Your task to perform on an android device: stop showing notifications on the lock screen Image 0: 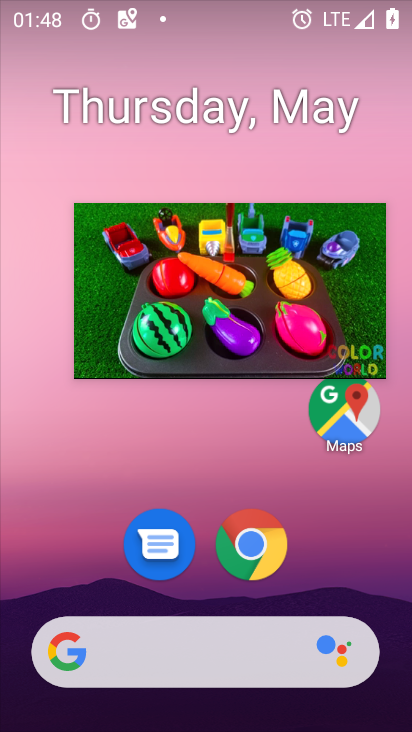
Step 0: drag from (376, 561) to (366, 149)
Your task to perform on an android device: stop showing notifications on the lock screen Image 1: 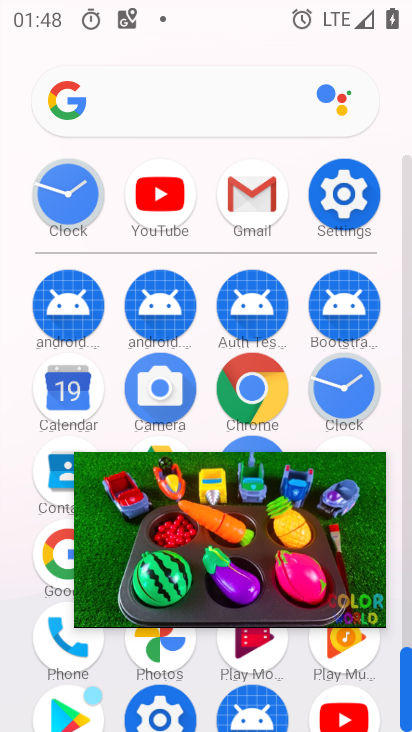
Step 1: click (363, 222)
Your task to perform on an android device: stop showing notifications on the lock screen Image 2: 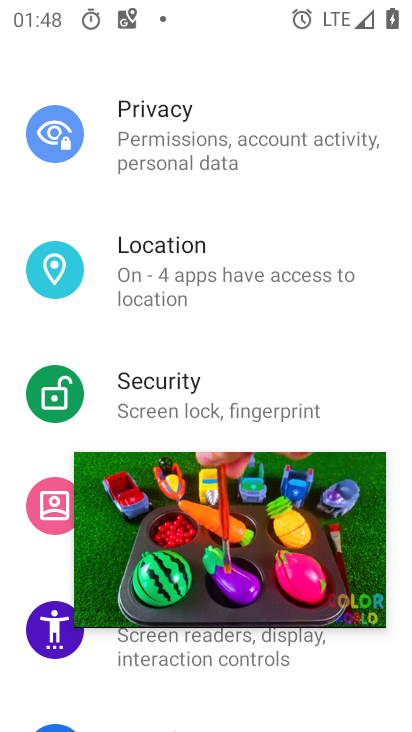
Step 2: drag from (364, 383) to (375, 276)
Your task to perform on an android device: stop showing notifications on the lock screen Image 3: 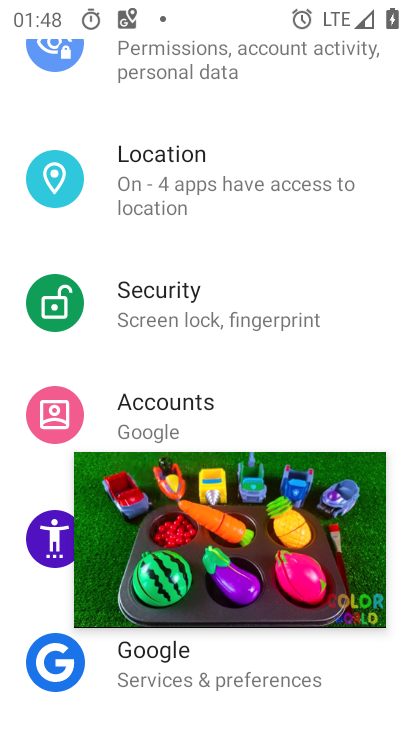
Step 3: drag from (357, 411) to (346, 251)
Your task to perform on an android device: stop showing notifications on the lock screen Image 4: 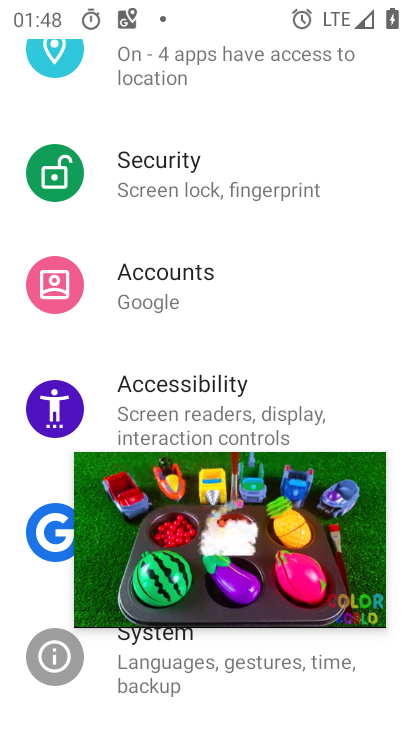
Step 4: drag from (360, 384) to (376, 231)
Your task to perform on an android device: stop showing notifications on the lock screen Image 5: 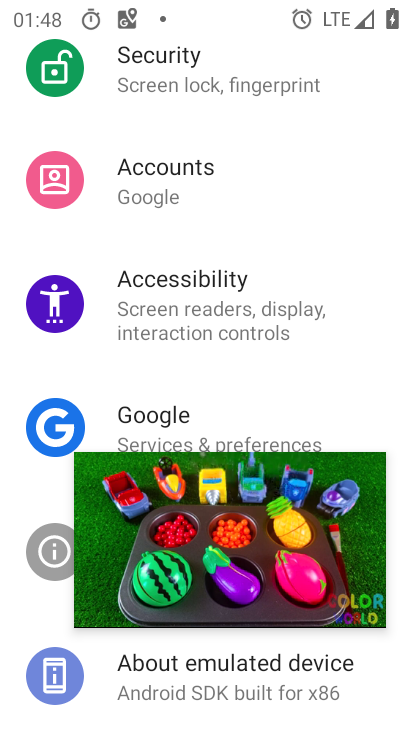
Step 5: drag from (317, 515) to (312, 726)
Your task to perform on an android device: stop showing notifications on the lock screen Image 6: 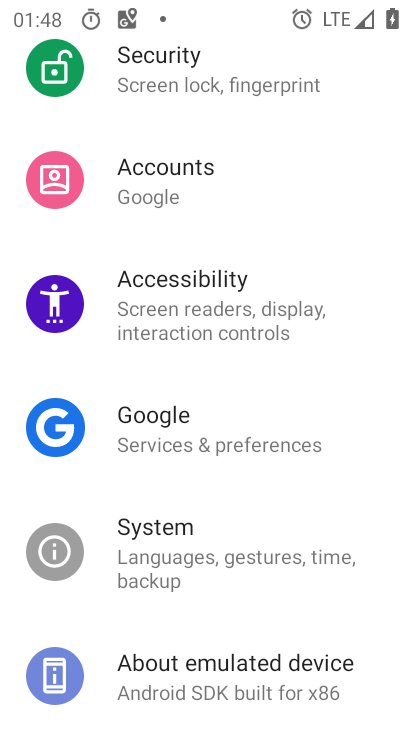
Step 6: drag from (353, 574) to (347, 354)
Your task to perform on an android device: stop showing notifications on the lock screen Image 7: 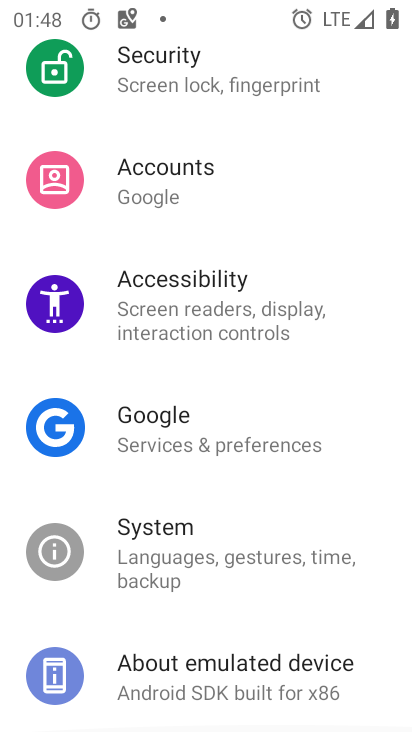
Step 7: drag from (355, 294) to (363, 421)
Your task to perform on an android device: stop showing notifications on the lock screen Image 8: 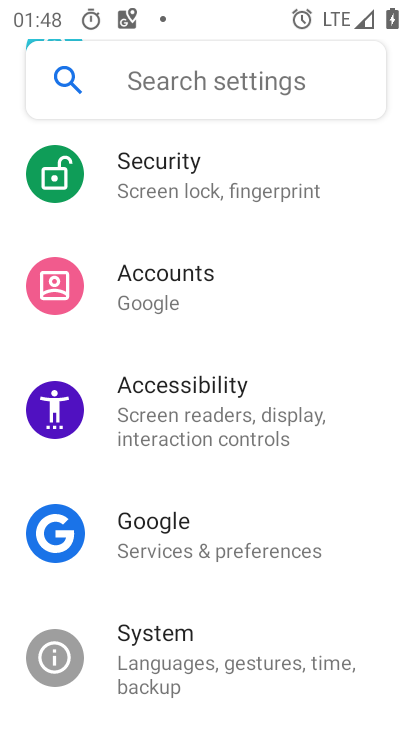
Step 8: drag from (361, 255) to (367, 421)
Your task to perform on an android device: stop showing notifications on the lock screen Image 9: 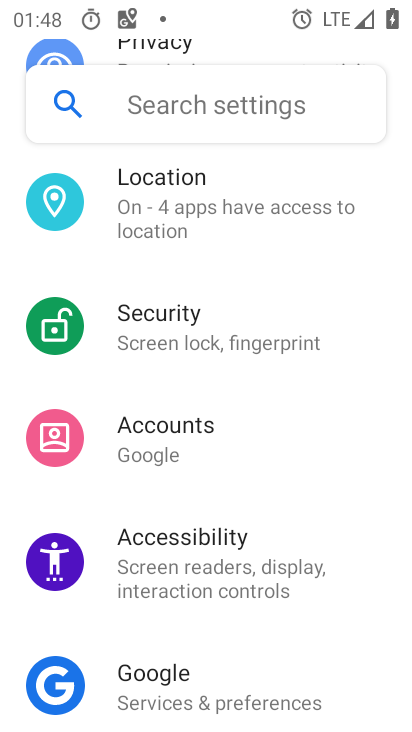
Step 9: drag from (367, 256) to (371, 457)
Your task to perform on an android device: stop showing notifications on the lock screen Image 10: 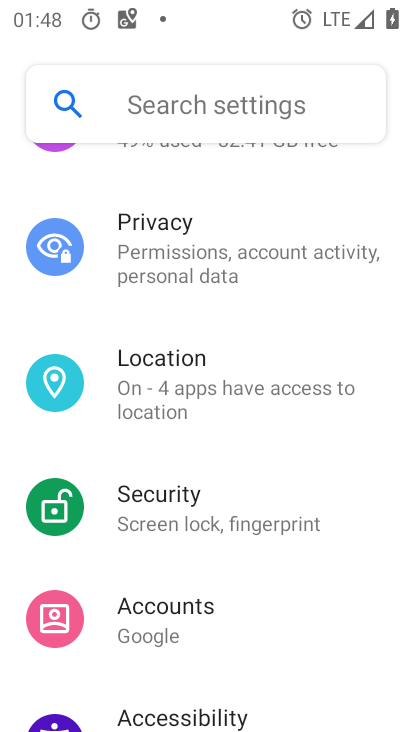
Step 10: drag from (375, 214) to (366, 386)
Your task to perform on an android device: stop showing notifications on the lock screen Image 11: 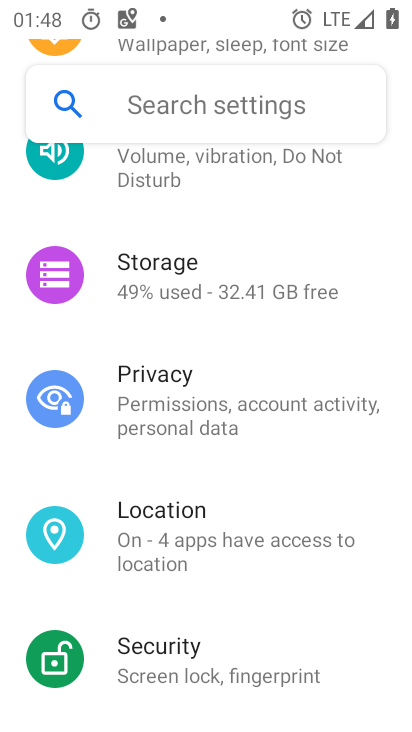
Step 11: drag from (363, 262) to (352, 378)
Your task to perform on an android device: stop showing notifications on the lock screen Image 12: 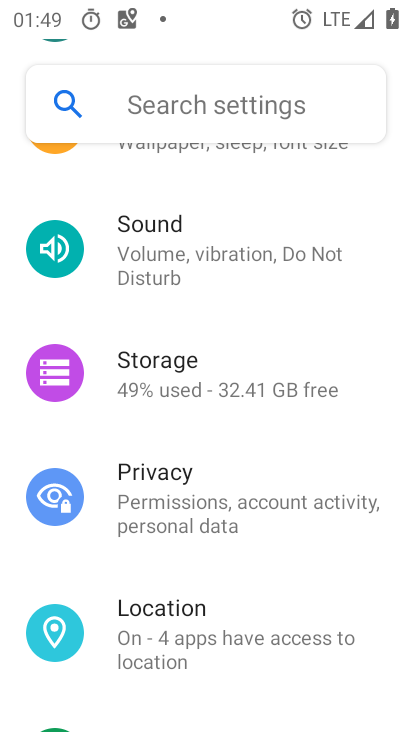
Step 12: drag from (372, 217) to (361, 309)
Your task to perform on an android device: stop showing notifications on the lock screen Image 13: 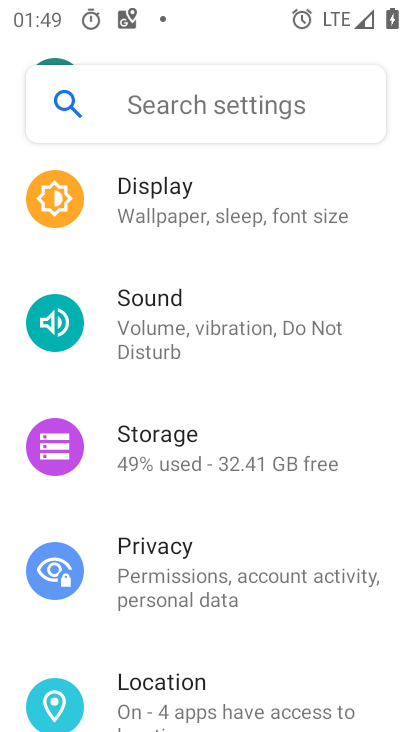
Step 13: drag from (373, 201) to (380, 342)
Your task to perform on an android device: stop showing notifications on the lock screen Image 14: 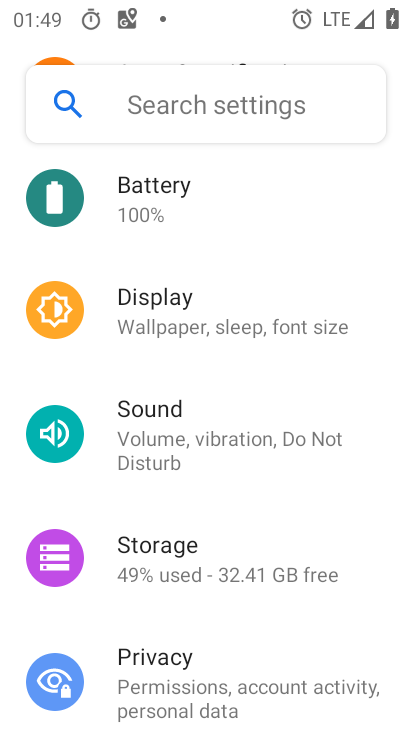
Step 14: drag from (398, 237) to (374, 388)
Your task to perform on an android device: stop showing notifications on the lock screen Image 15: 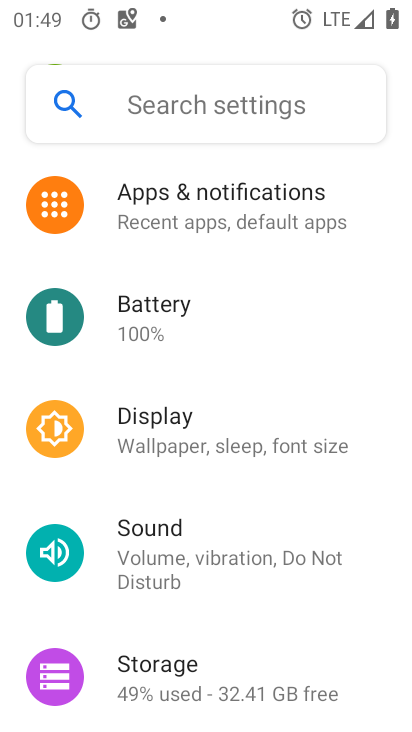
Step 15: drag from (347, 194) to (359, 340)
Your task to perform on an android device: stop showing notifications on the lock screen Image 16: 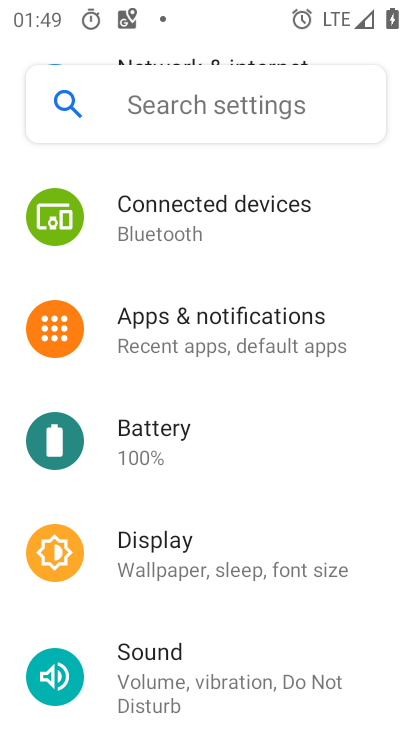
Step 16: drag from (356, 201) to (338, 325)
Your task to perform on an android device: stop showing notifications on the lock screen Image 17: 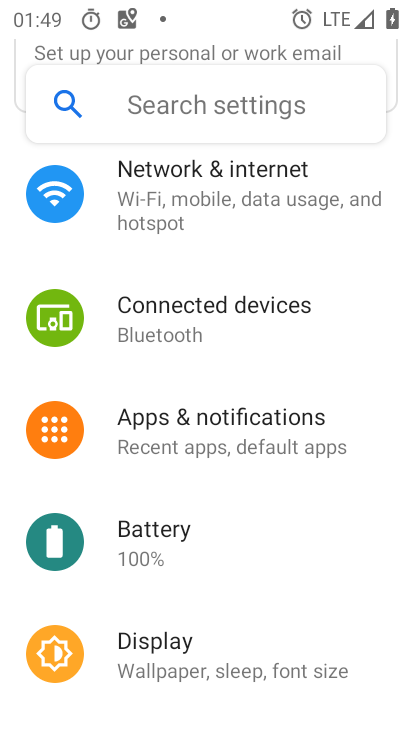
Step 17: drag from (338, 240) to (346, 356)
Your task to perform on an android device: stop showing notifications on the lock screen Image 18: 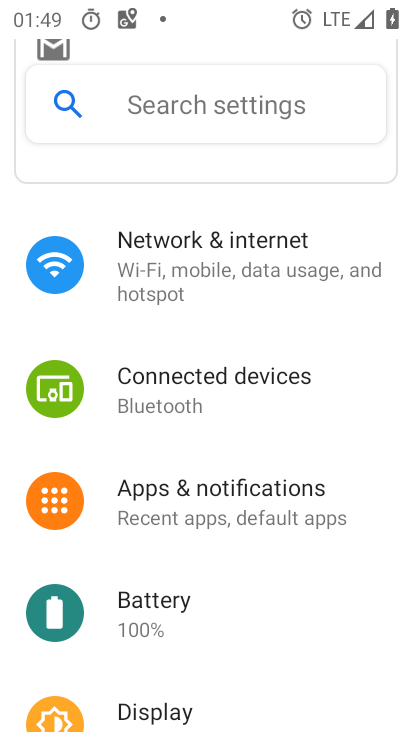
Step 18: click (285, 522)
Your task to perform on an android device: stop showing notifications on the lock screen Image 19: 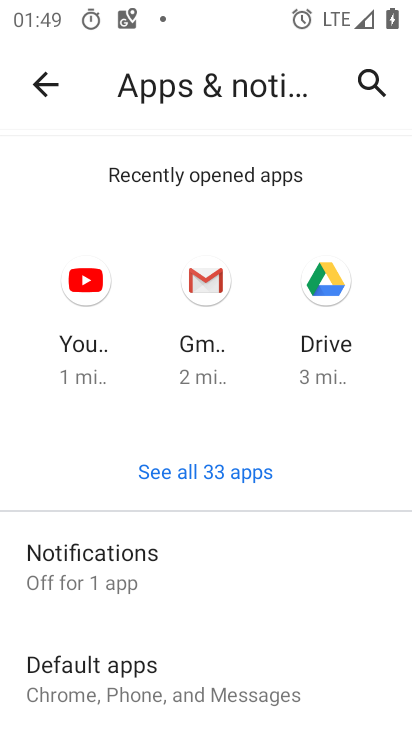
Step 19: click (135, 574)
Your task to perform on an android device: stop showing notifications on the lock screen Image 20: 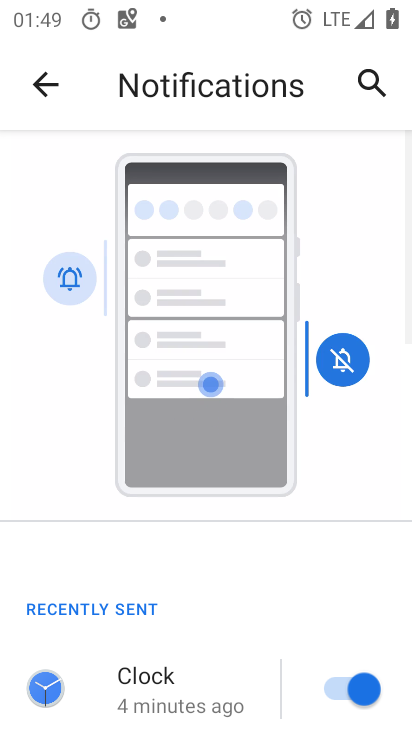
Step 20: drag from (247, 590) to (262, 341)
Your task to perform on an android device: stop showing notifications on the lock screen Image 21: 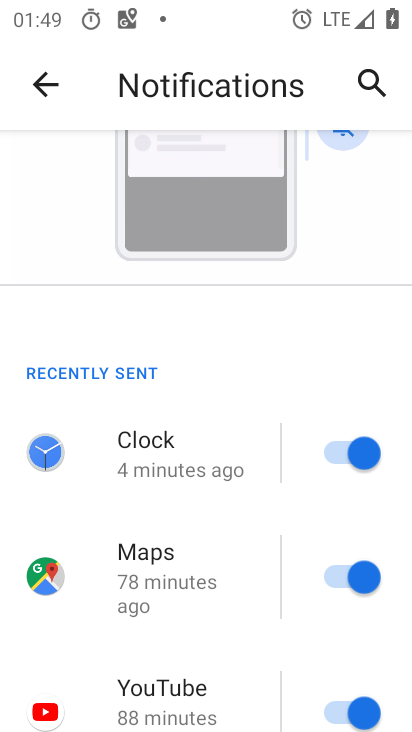
Step 21: drag from (247, 617) to (277, 433)
Your task to perform on an android device: stop showing notifications on the lock screen Image 22: 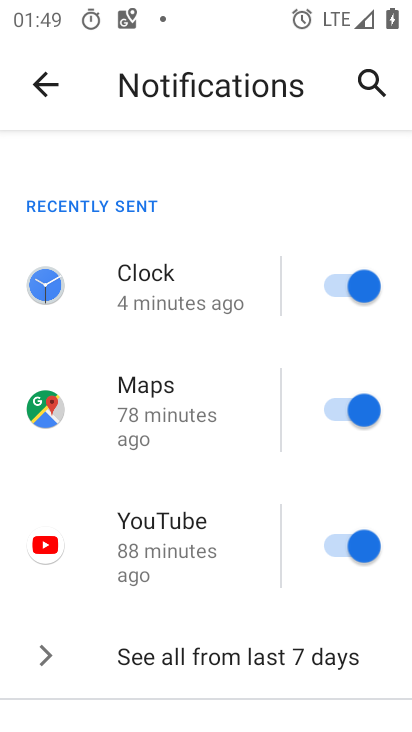
Step 22: drag from (269, 585) to (262, 435)
Your task to perform on an android device: stop showing notifications on the lock screen Image 23: 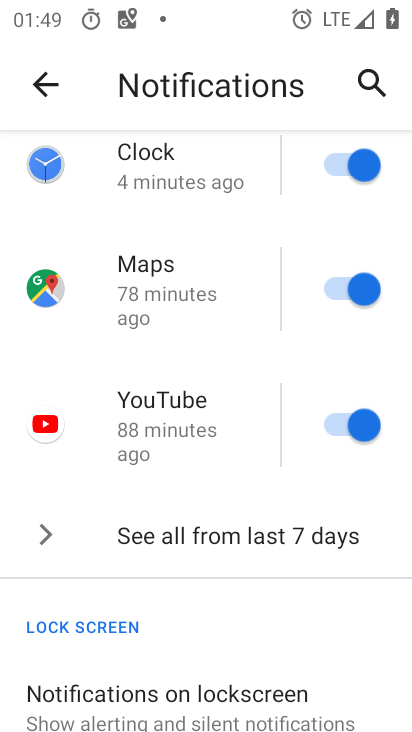
Step 23: drag from (295, 631) to (287, 432)
Your task to perform on an android device: stop showing notifications on the lock screen Image 24: 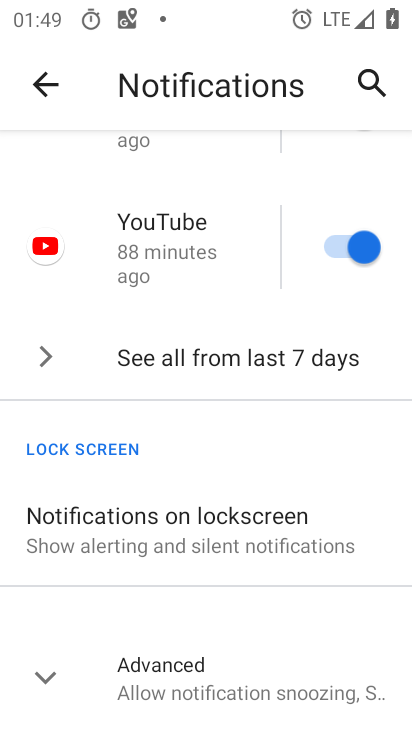
Step 24: click (267, 545)
Your task to perform on an android device: stop showing notifications on the lock screen Image 25: 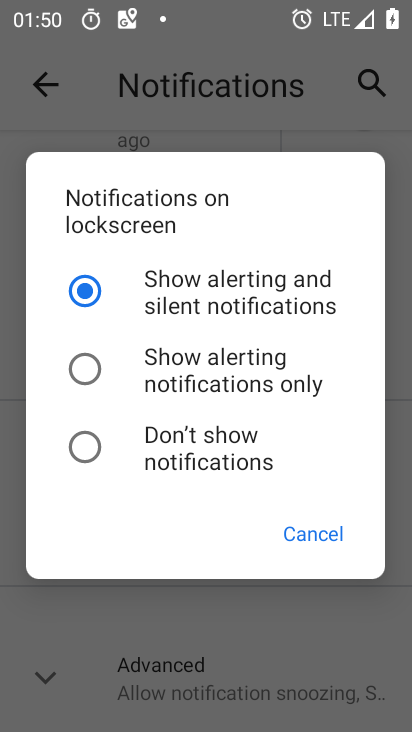
Step 25: click (89, 442)
Your task to perform on an android device: stop showing notifications on the lock screen Image 26: 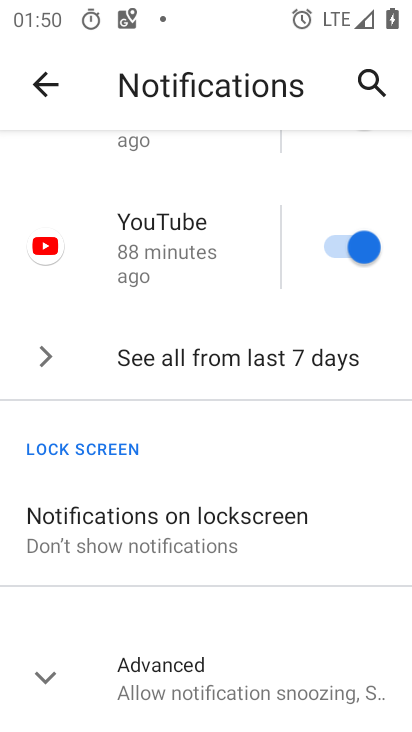
Step 26: task complete